Your task to perform on an android device: open wifi settings Image 0: 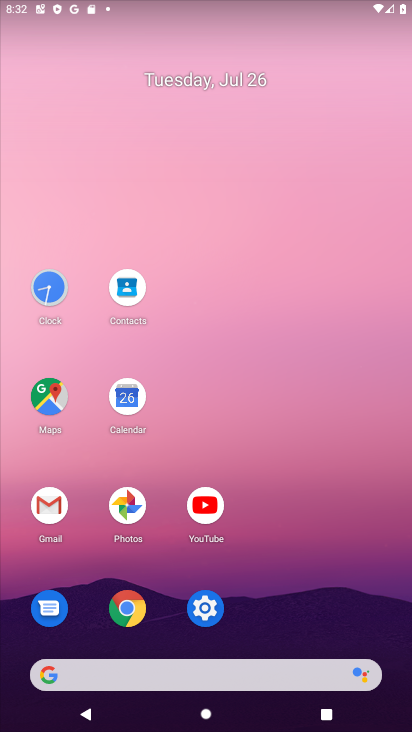
Step 0: click (205, 613)
Your task to perform on an android device: open wifi settings Image 1: 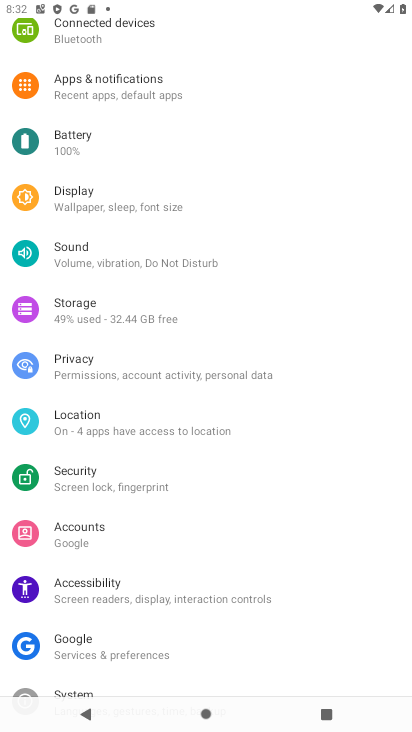
Step 1: drag from (257, 110) to (179, 604)
Your task to perform on an android device: open wifi settings Image 2: 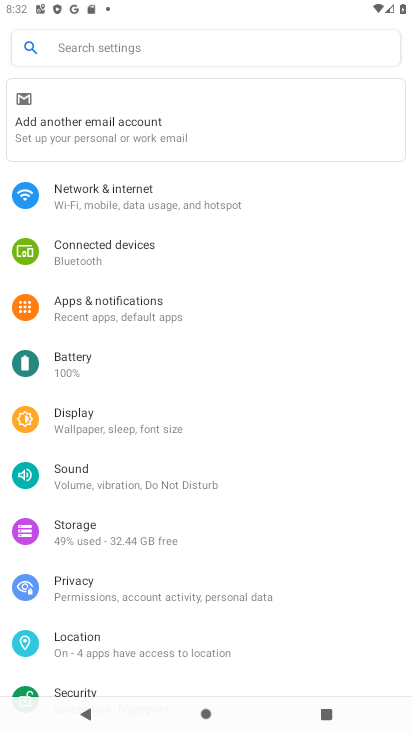
Step 2: click (88, 191)
Your task to perform on an android device: open wifi settings Image 3: 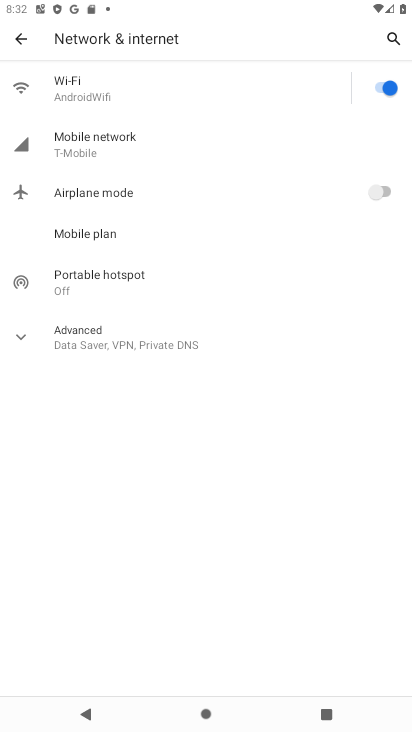
Step 3: click (100, 78)
Your task to perform on an android device: open wifi settings Image 4: 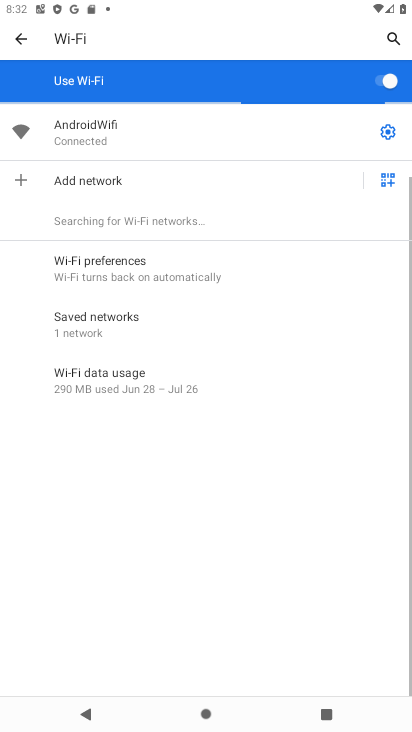
Step 4: task complete